Your task to perform on an android device: Clear the shopping cart on newegg.com. Search for razer blade on newegg.com, select the first entry, add it to the cart, then select checkout. Image 0: 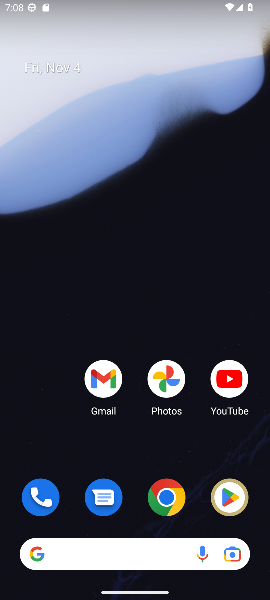
Step 0: click (168, 497)
Your task to perform on an android device: Clear the shopping cart on newegg.com. Search for razer blade on newegg.com, select the first entry, add it to the cart, then select checkout. Image 1: 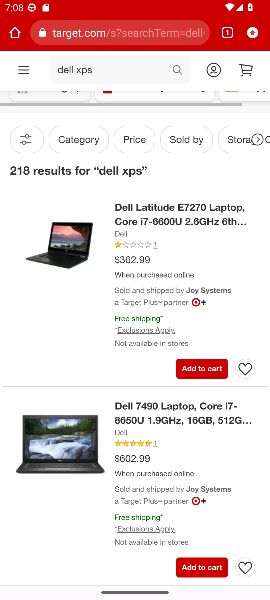
Step 1: click (92, 37)
Your task to perform on an android device: Clear the shopping cart on newegg.com. Search for razer blade on newegg.com, select the first entry, add it to the cart, then select checkout. Image 2: 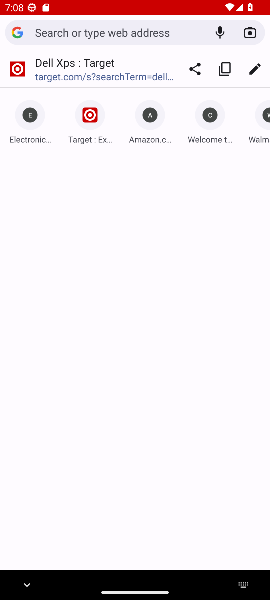
Step 2: type "newegg.com"
Your task to perform on an android device: Clear the shopping cart on newegg.com. Search for razer blade on newegg.com, select the first entry, add it to the cart, then select checkout. Image 3: 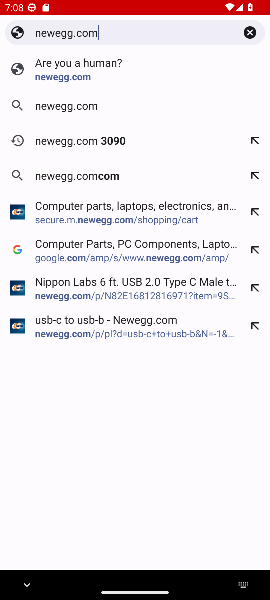
Step 3: click (80, 111)
Your task to perform on an android device: Clear the shopping cart on newegg.com. Search for razer blade on newegg.com, select the first entry, add it to the cart, then select checkout. Image 4: 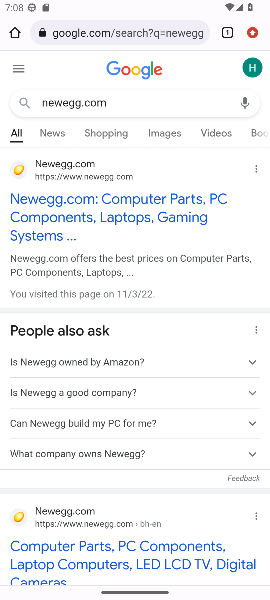
Step 4: click (64, 209)
Your task to perform on an android device: Clear the shopping cart on newegg.com. Search for razer blade on newegg.com, select the first entry, add it to the cart, then select checkout. Image 5: 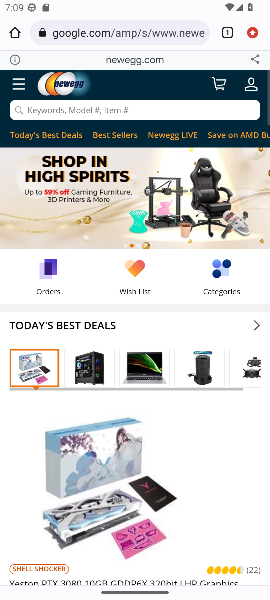
Step 5: click (220, 86)
Your task to perform on an android device: Clear the shopping cart on newegg.com. Search for razer blade on newegg.com, select the first entry, add it to the cart, then select checkout. Image 6: 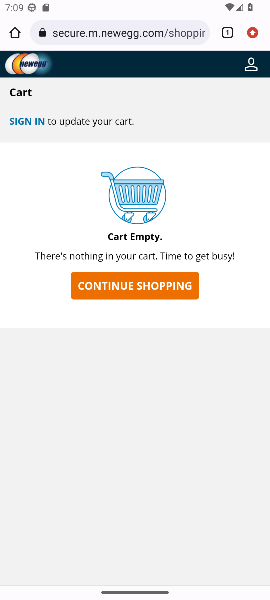
Step 6: click (147, 289)
Your task to perform on an android device: Clear the shopping cart on newegg.com. Search for razer blade on newegg.com, select the first entry, add it to the cart, then select checkout. Image 7: 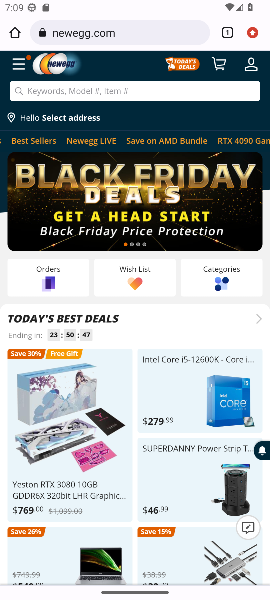
Step 7: click (114, 82)
Your task to perform on an android device: Clear the shopping cart on newegg.com. Search for razer blade on newegg.com, select the first entry, add it to the cart, then select checkout. Image 8: 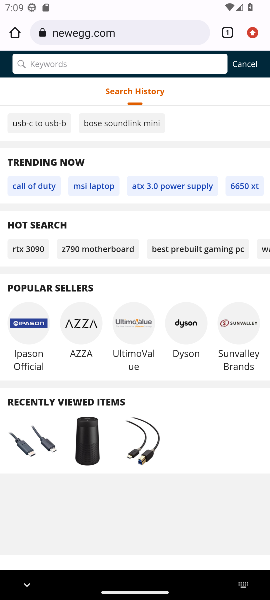
Step 8: type "razer blade"
Your task to perform on an android device: Clear the shopping cart on newegg.com. Search for razer blade on newegg.com, select the first entry, add it to the cart, then select checkout. Image 9: 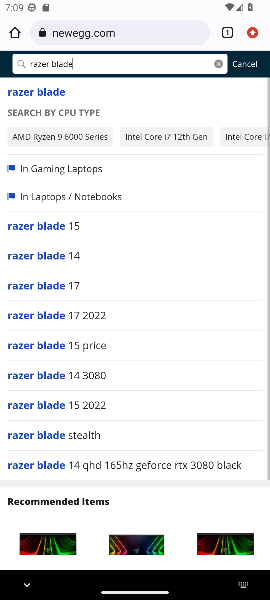
Step 9: click (50, 97)
Your task to perform on an android device: Clear the shopping cart on newegg.com. Search for razer blade on newegg.com, select the first entry, add it to the cart, then select checkout. Image 10: 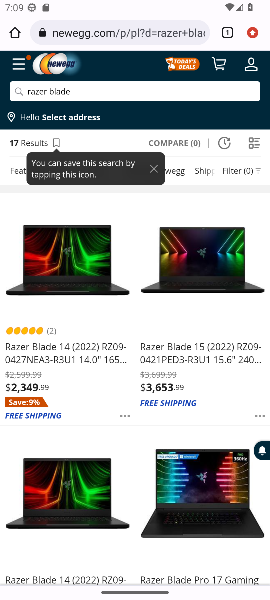
Step 10: click (67, 314)
Your task to perform on an android device: Clear the shopping cart on newegg.com. Search for razer blade on newegg.com, select the first entry, add it to the cart, then select checkout. Image 11: 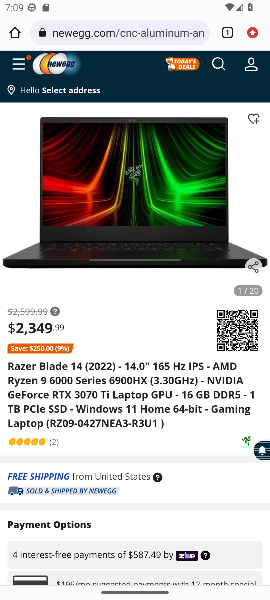
Step 11: click (130, 577)
Your task to perform on an android device: Clear the shopping cart on newegg.com. Search for razer blade on newegg.com, select the first entry, add it to the cart, then select checkout. Image 12: 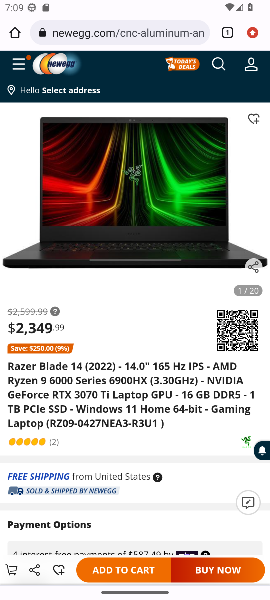
Step 12: click (130, 577)
Your task to perform on an android device: Clear the shopping cart on newegg.com. Search for razer blade on newegg.com, select the first entry, add it to the cart, then select checkout. Image 13: 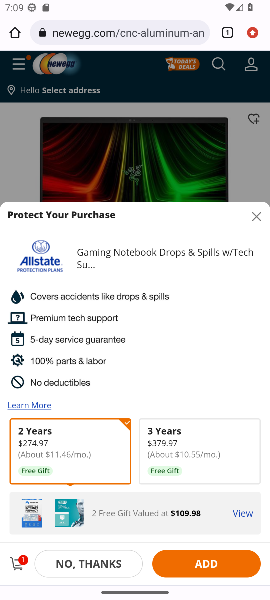
Step 13: click (16, 566)
Your task to perform on an android device: Clear the shopping cart on newegg.com. Search for razer blade on newegg.com, select the first entry, add it to the cart, then select checkout. Image 14: 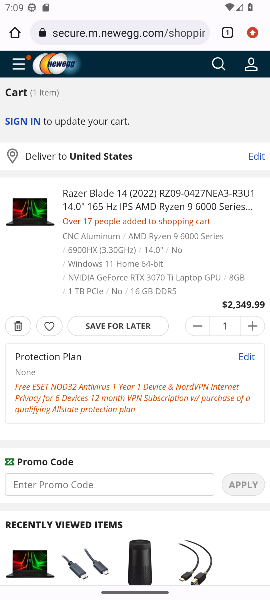
Step 14: drag from (147, 451) to (161, 327)
Your task to perform on an android device: Clear the shopping cart on newegg.com. Search for razer blade on newegg.com, select the first entry, add it to the cart, then select checkout. Image 15: 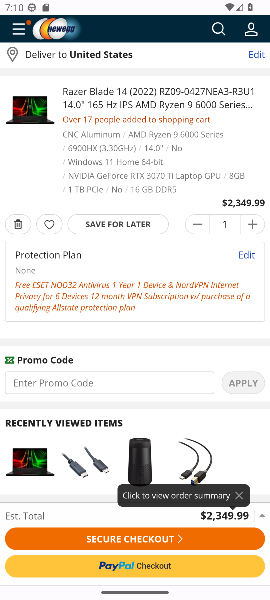
Step 15: click (132, 539)
Your task to perform on an android device: Clear the shopping cart on newegg.com. Search for razer blade on newegg.com, select the first entry, add it to the cart, then select checkout. Image 16: 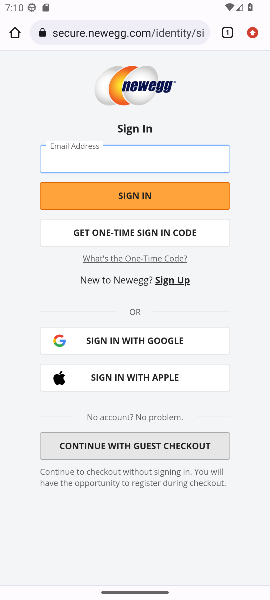
Step 16: task complete